Your task to perform on an android device: Open Google Chrome and open the bookmarks view Image 0: 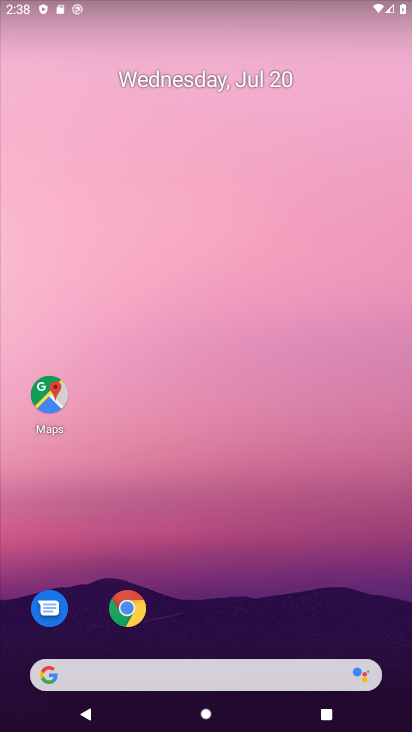
Step 0: drag from (282, 638) to (208, 94)
Your task to perform on an android device: Open Google Chrome and open the bookmarks view Image 1: 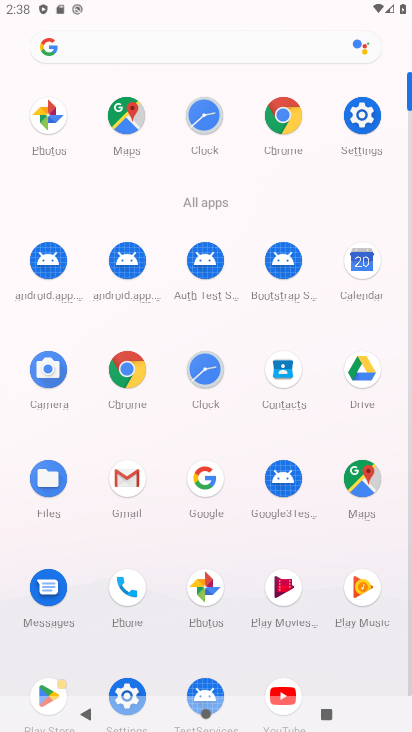
Step 1: click (129, 371)
Your task to perform on an android device: Open Google Chrome and open the bookmarks view Image 2: 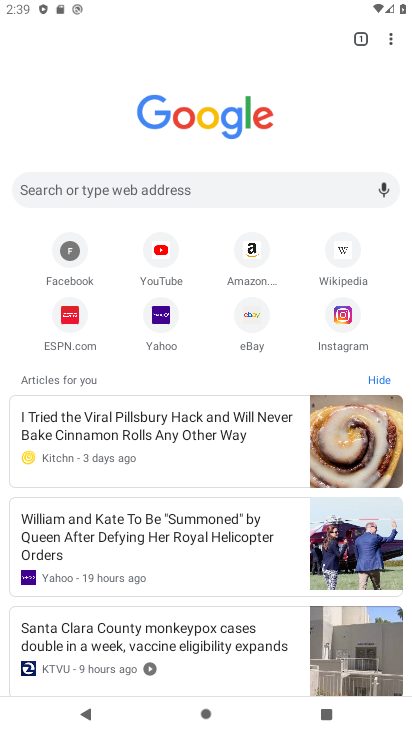
Step 2: task complete